Your task to perform on an android device: Go to eBay Image 0: 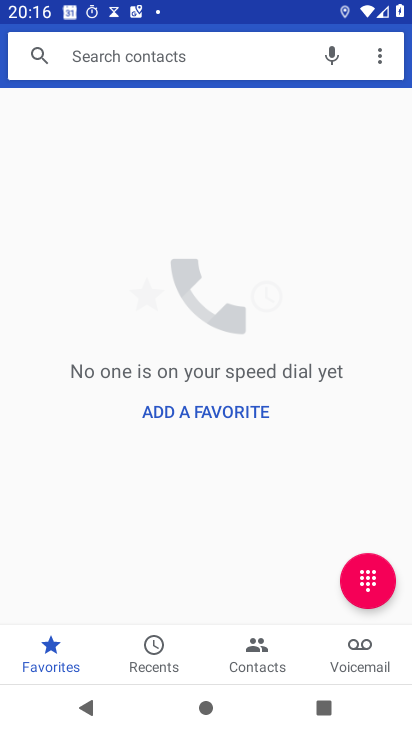
Step 0: press home button
Your task to perform on an android device: Go to eBay Image 1: 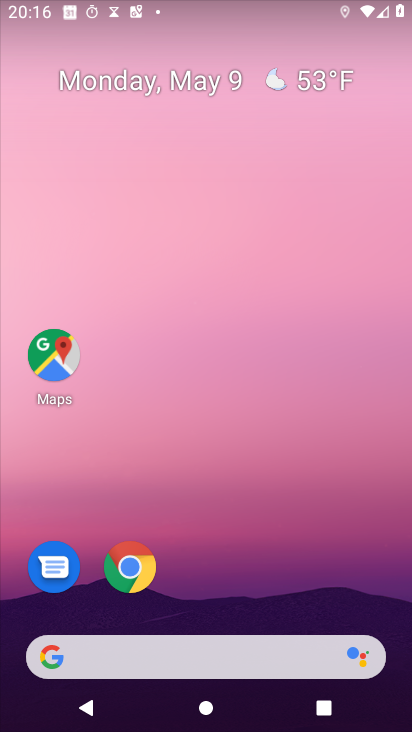
Step 1: click (121, 572)
Your task to perform on an android device: Go to eBay Image 2: 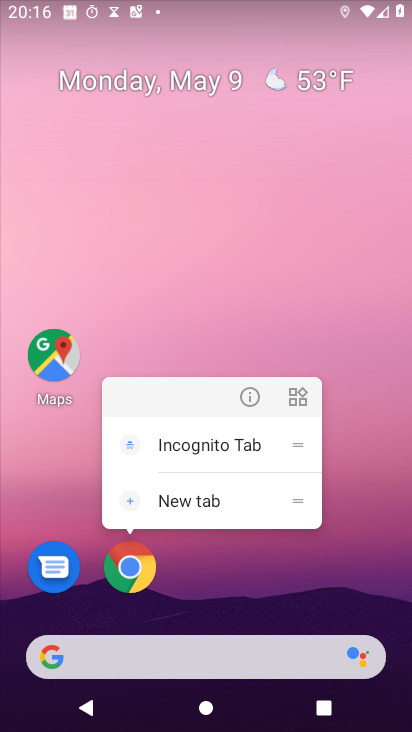
Step 2: click (121, 572)
Your task to perform on an android device: Go to eBay Image 3: 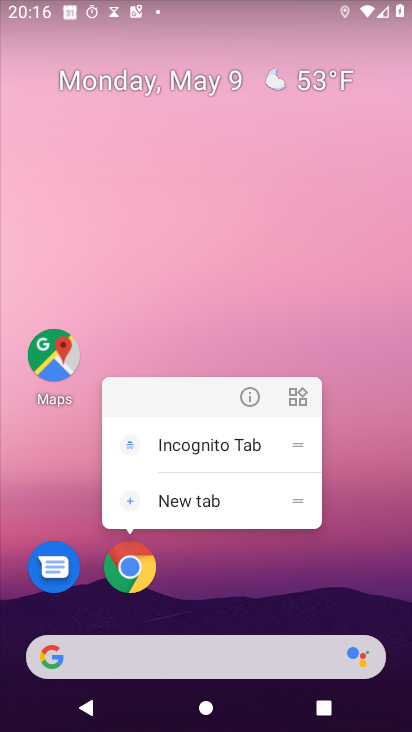
Step 3: click (121, 572)
Your task to perform on an android device: Go to eBay Image 4: 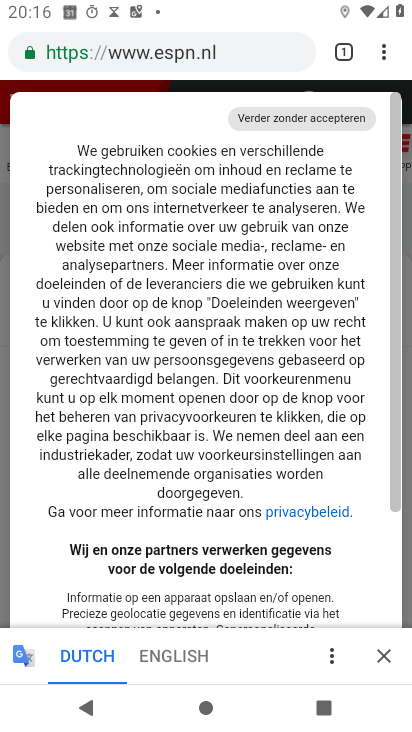
Step 4: click (156, 58)
Your task to perform on an android device: Go to eBay Image 5: 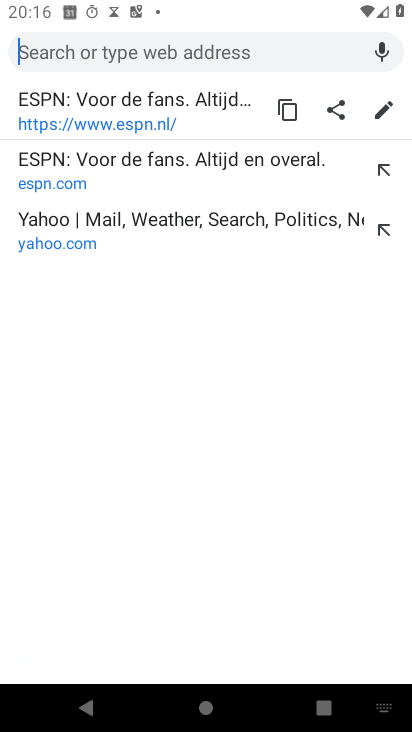
Step 5: type "ebay"
Your task to perform on an android device: Go to eBay Image 6: 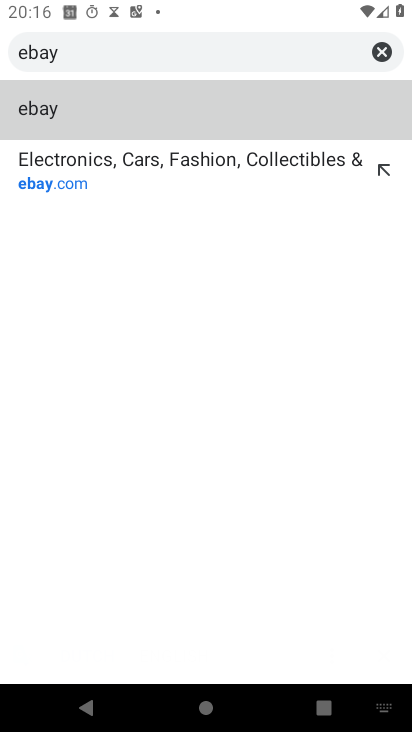
Step 6: click (58, 123)
Your task to perform on an android device: Go to eBay Image 7: 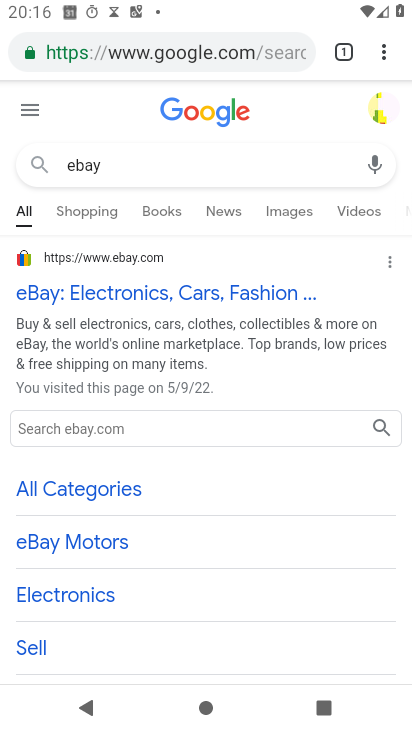
Step 7: click (62, 297)
Your task to perform on an android device: Go to eBay Image 8: 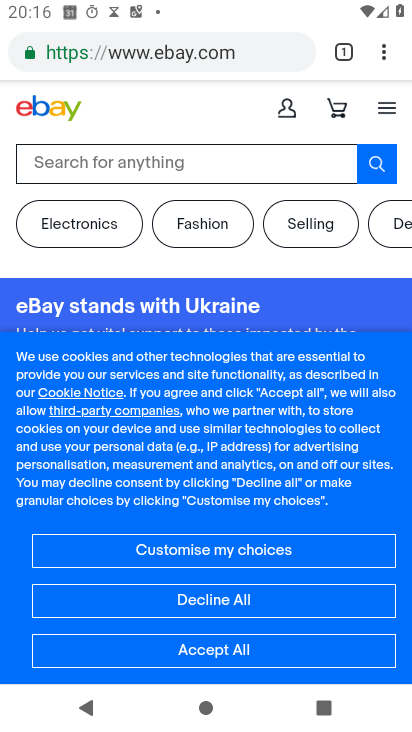
Step 8: task complete